Your task to perform on an android device: Open calendar and show me the third week of next month Image 0: 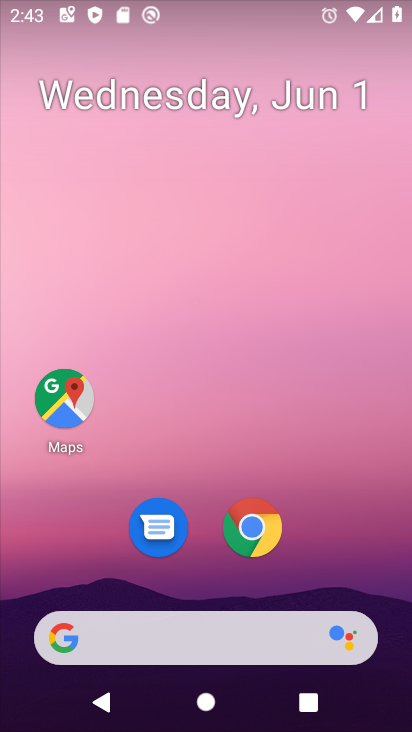
Step 0: drag from (340, 550) to (306, 163)
Your task to perform on an android device: Open calendar and show me the third week of next month Image 1: 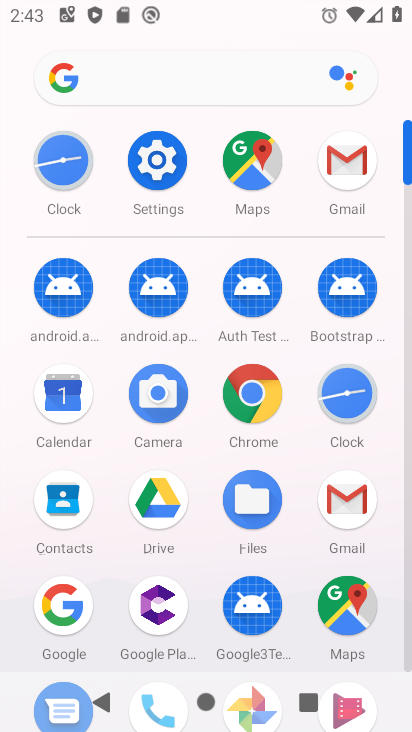
Step 1: click (64, 399)
Your task to perform on an android device: Open calendar and show me the third week of next month Image 2: 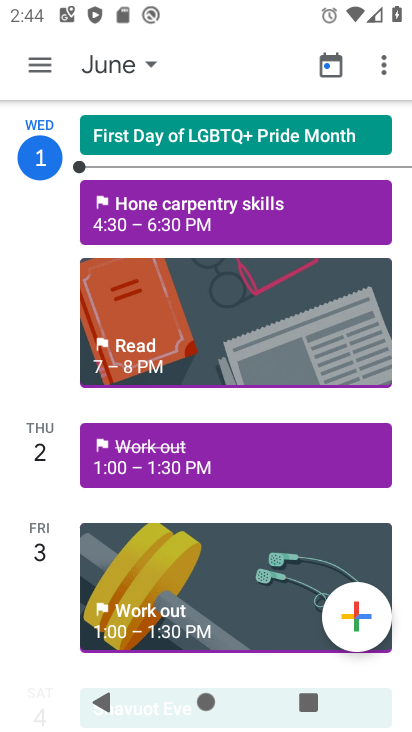
Step 2: click (146, 63)
Your task to perform on an android device: Open calendar and show me the third week of next month Image 3: 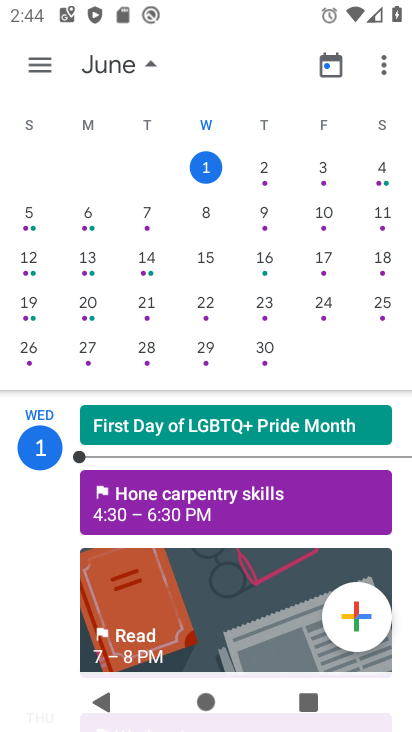
Step 3: drag from (353, 277) to (28, 364)
Your task to perform on an android device: Open calendar and show me the third week of next month Image 4: 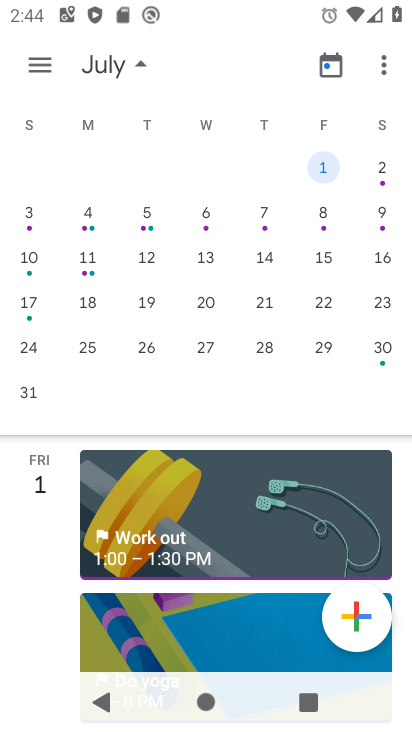
Step 4: click (93, 293)
Your task to perform on an android device: Open calendar and show me the third week of next month Image 5: 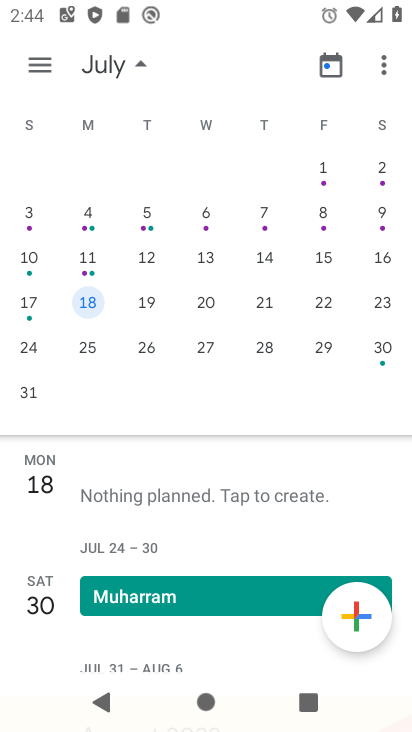
Step 5: click (37, 62)
Your task to perform on an android device: Open calendar and show me the third week of next month Image 6: 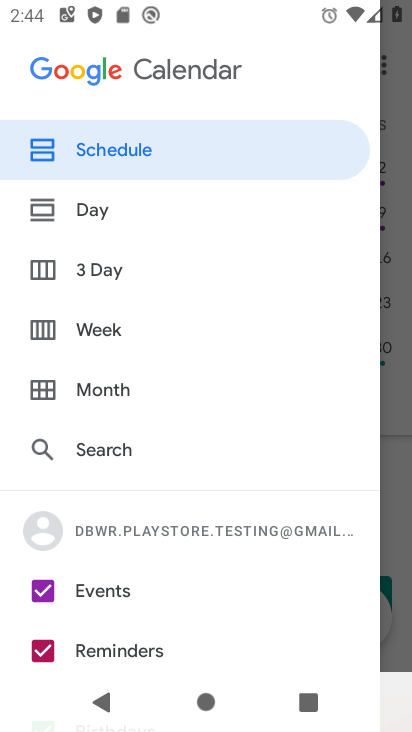
Step 6: click (73, 324)
Your task to perform on an android device: Open calendar and show me the third week of next month Image 7: 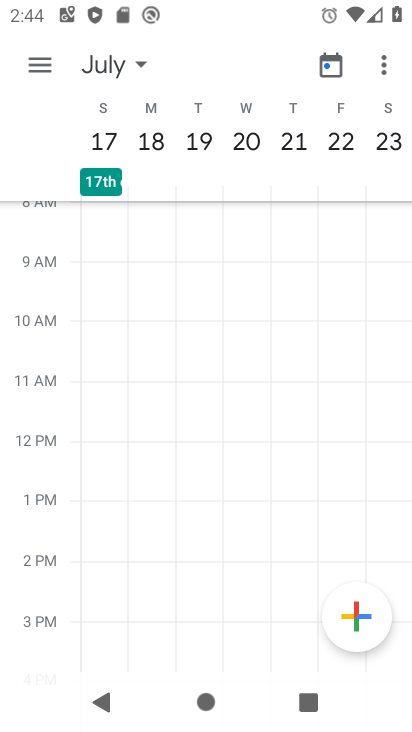
Step 7: task complete